Your task to perform on an android device: Open Chrome and go to the settings page Image 0: 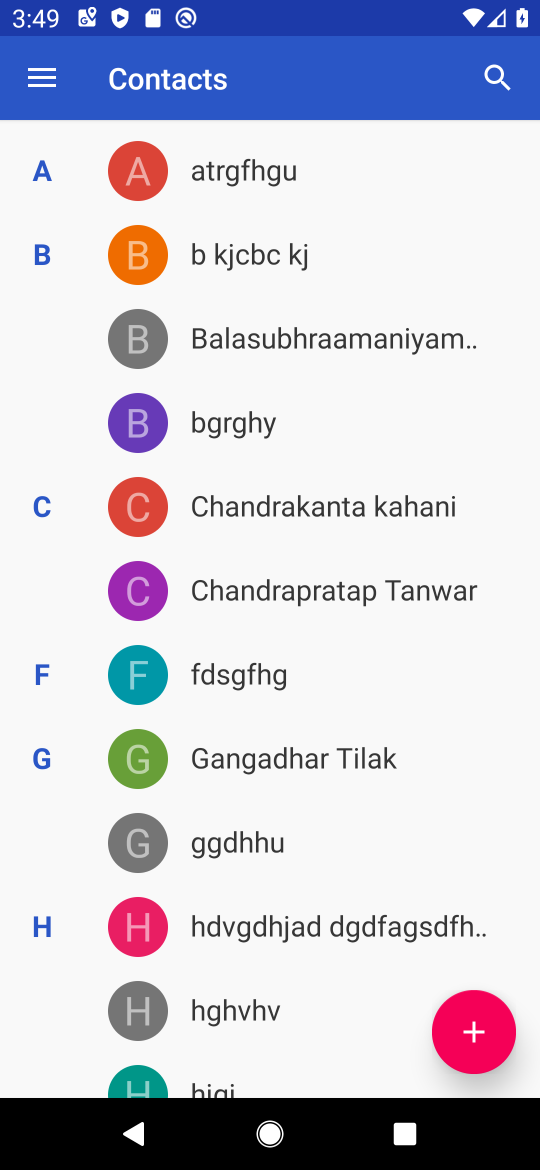
Step 0: press home button
Your task to perform on an android device: Open Chrome and go to the settings page Image 1: 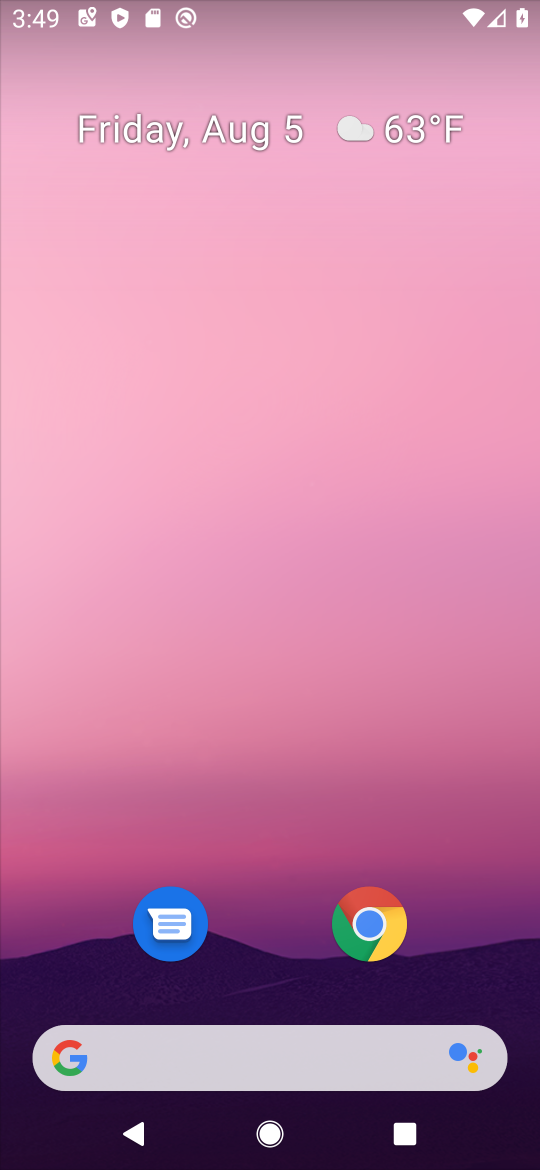
Step 1: drag from (284, 965) to (330, 85)
Your task to perform on an android device: Open Chrome and go to the settings page Image 2: 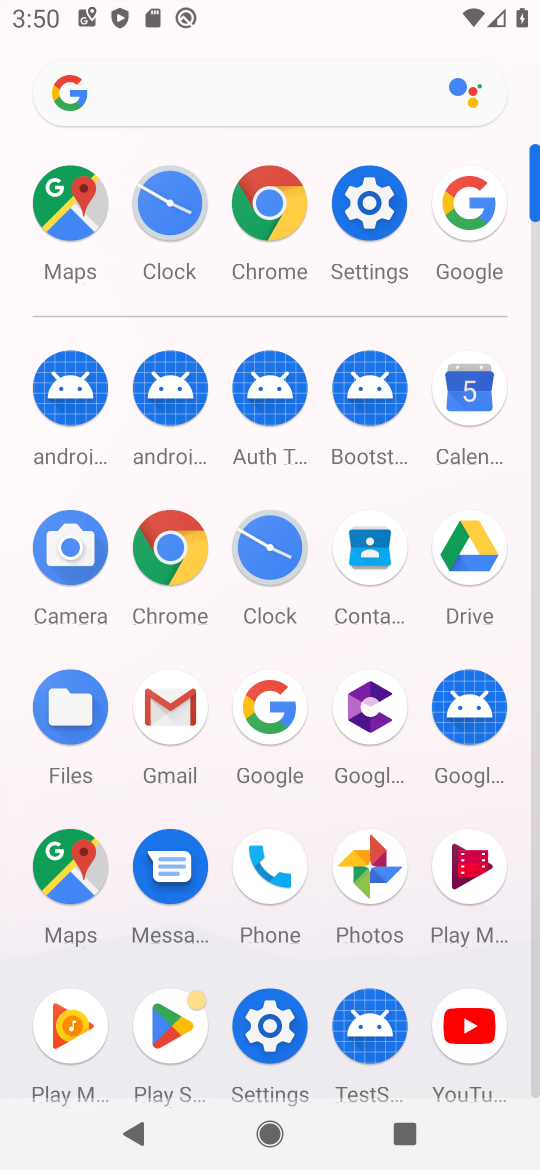
Step 2: click (179, 554)
Your task to perform on an android device: Open Chrome and go to the settings page Image 3: 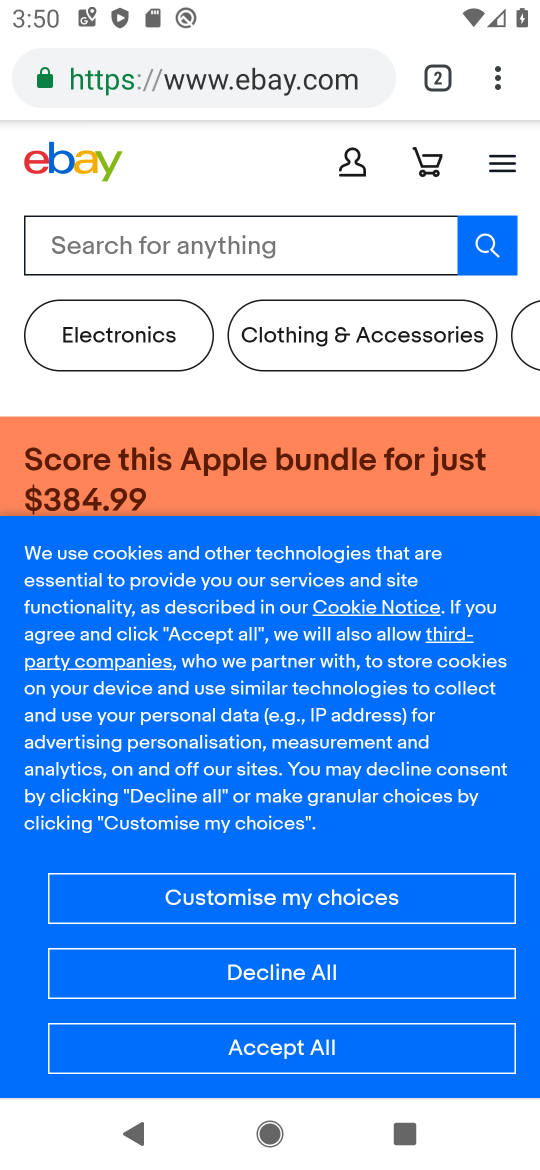
Step 3: click (501, 77)
Your task to perform on an android device: Open Chrome and go to the settings page Image 4: 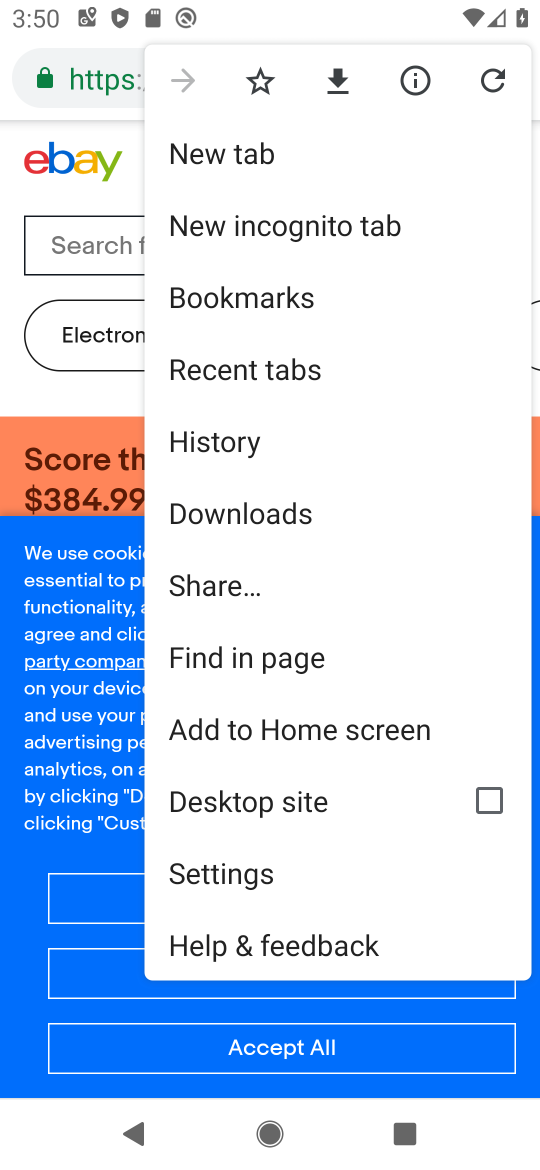
Step 4: click (295, 867)
Your task to perform on an android device: Open Chrome and go to the settings page Image 5: 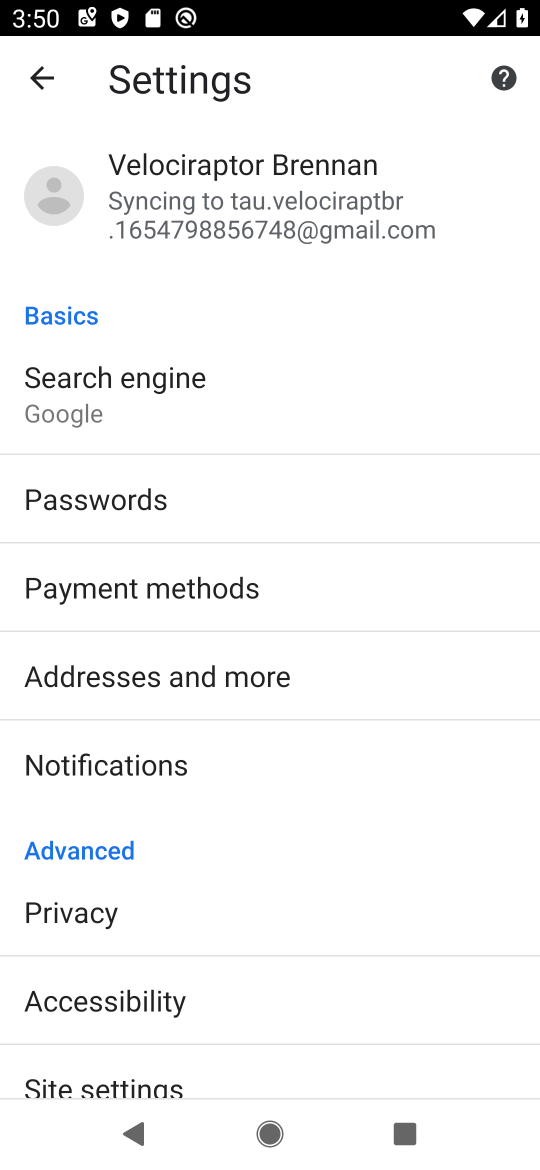
Step 5: task complete